Your task to perform on an android device: open chrome privacy settings Image 0: 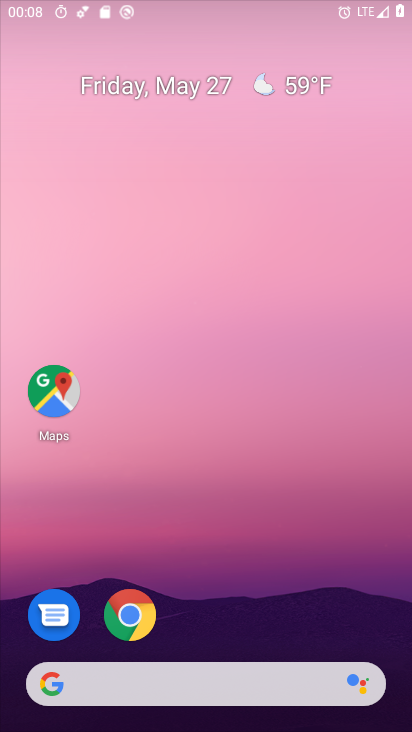
Step 0: click (266, 669)
Your task to perform on an android device: open chrome privacy settings Image 1: 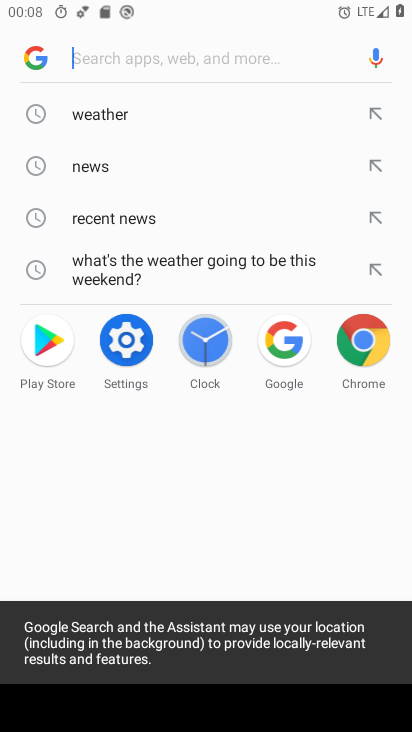
Step 1: click (371, 335)
Your task to perform on an android device: open chrome privacy settings Image 2: 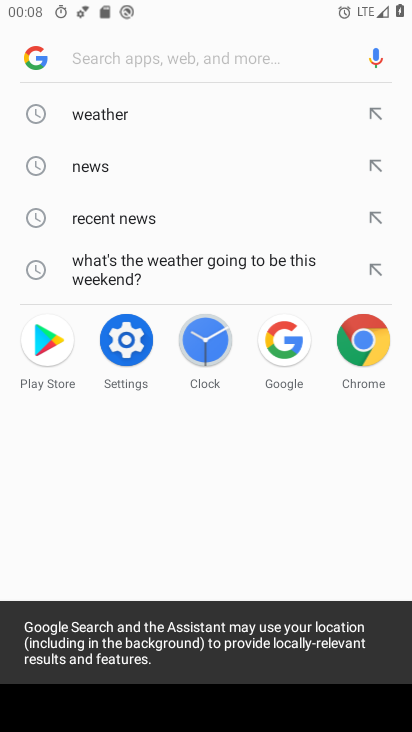
Step 2: click (371, 335)
Your task to perform on an android device: open chrome privacy settings Image 3: 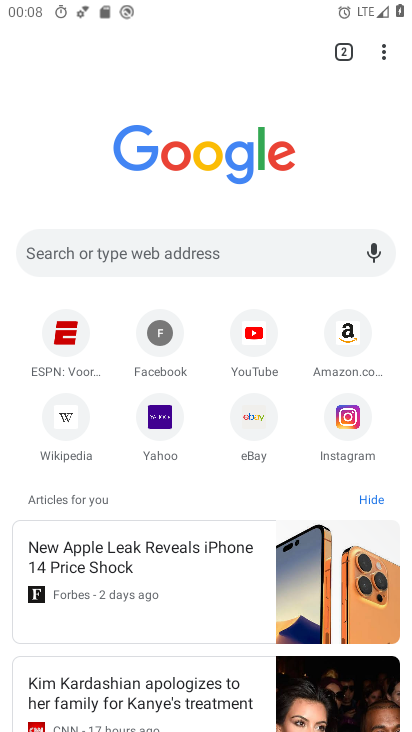
Step 3: click (367, 53)
Your task to perform on an android device: open chrome privacy settings Image 4: 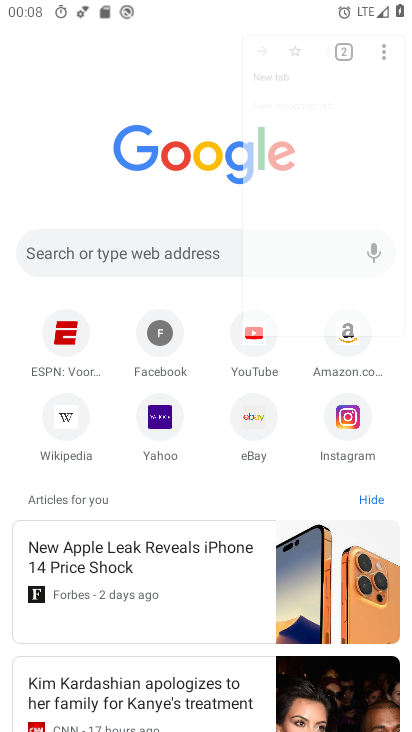
Step 4: click (367, 53)
Your task to perform on an android device: open chrome privacy settings Image 5: 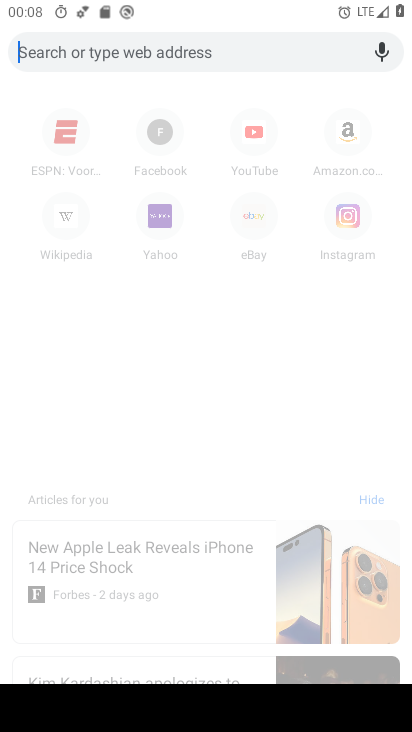
Step 5: press back button
Your task to perform on an android device: open chrome privacy settings Image 6: 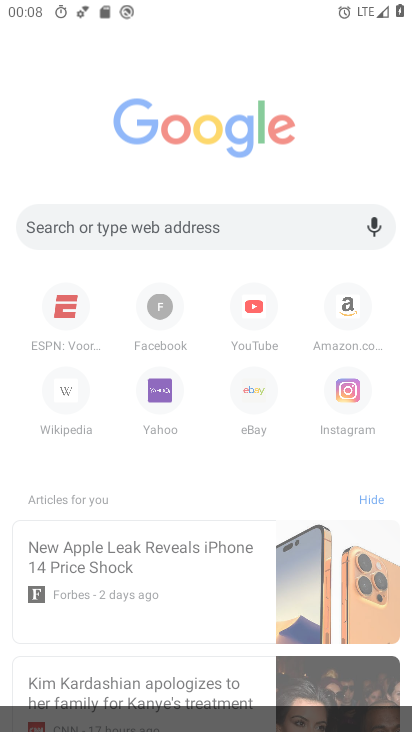
Step 6: press back button
Your task to perform on an android device: open chrome privacy settings Image 7: 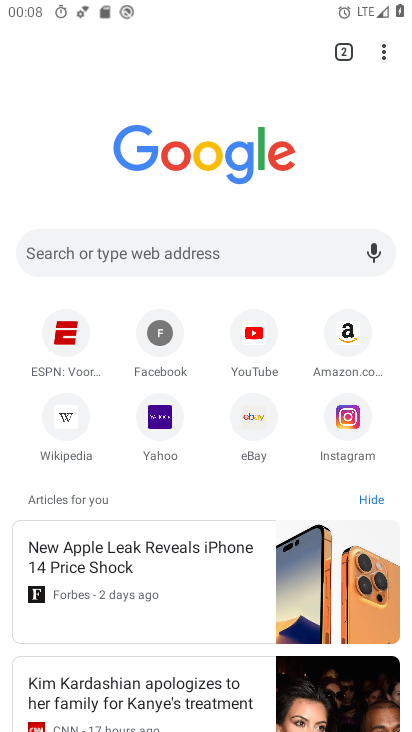
Step 7: press back button
Your task to perform on an android device: open chrome privacy settings Image 8: 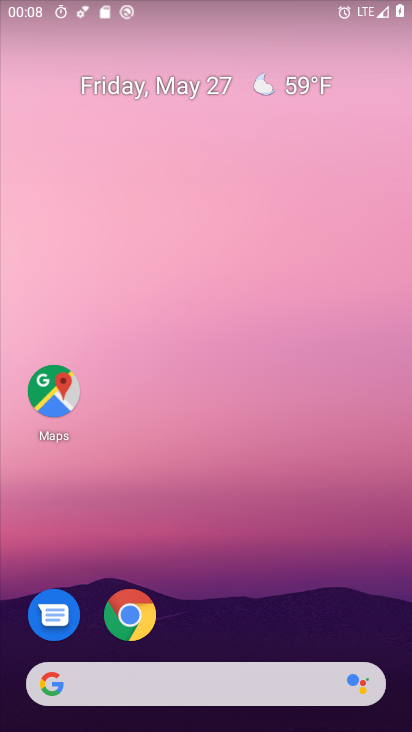
Step 8: drag from (290, 521) to (244, 75)
Your task to perform on an android device: open chrome privacy settings Image 9: 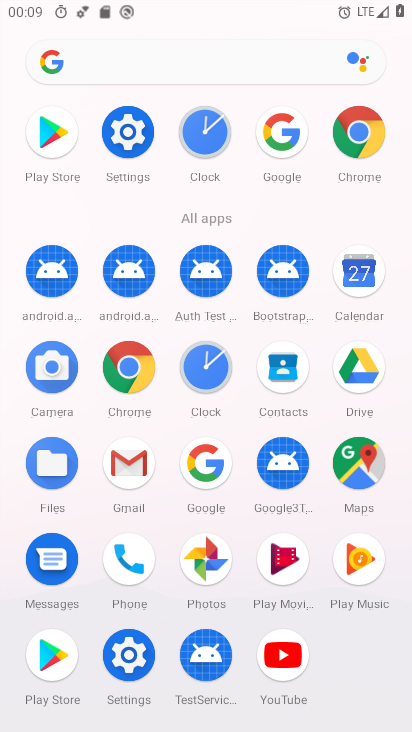
Step 9: click (357, 134)
Your task to perform on an android device: open chrome privacy settings Image 10: 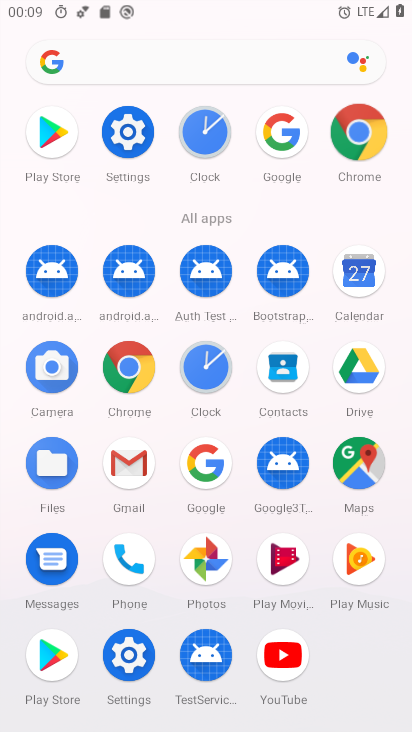
Step 10: click (357, 133)
Your task to perform on an android device: open chrome privacy settings Image 11: 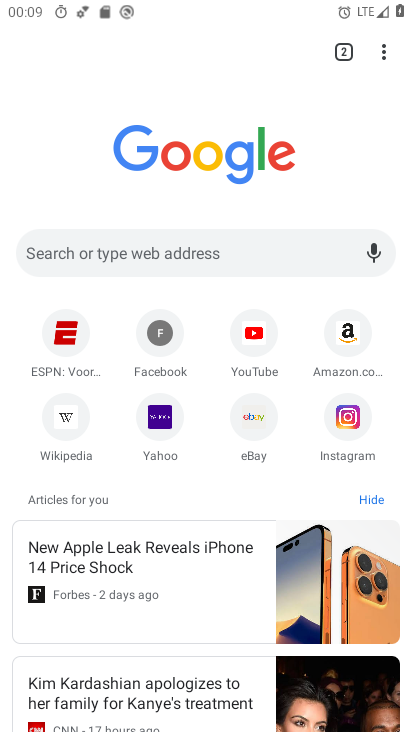
Step 11: drag from (386, 57) to (207, 439)
Your task to perform on an android device: open chrome privacy settings Image 12: 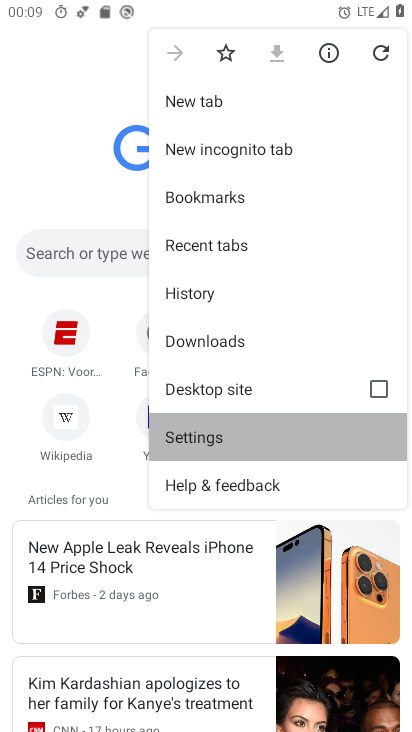
Step 12: click (207, 439)
Your task to perform on an android device: open chrome privacy settings Image 13: 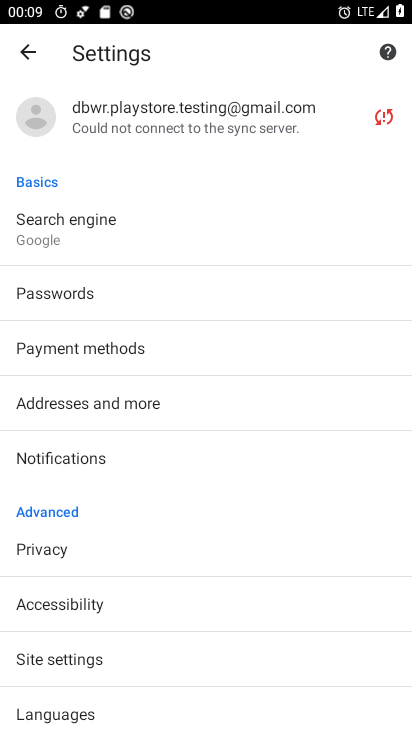
Step 13: click (59, 545)
Your task to perform on an android device: open chrome privacy settings Image 14: 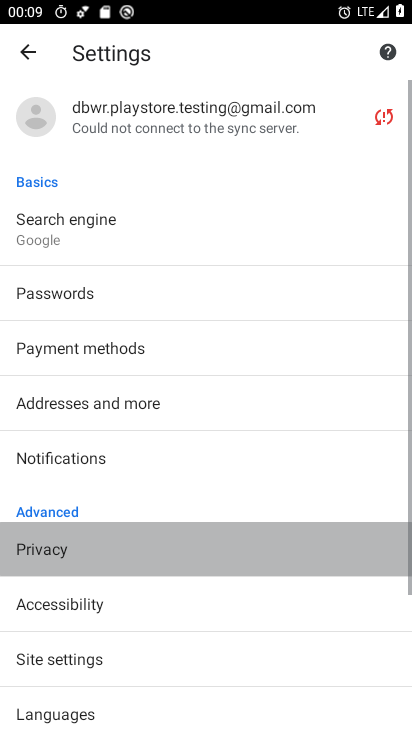
Step 14: click (57, 546)
Your task to perform on an android device: open chrome privacy settings Image 15: 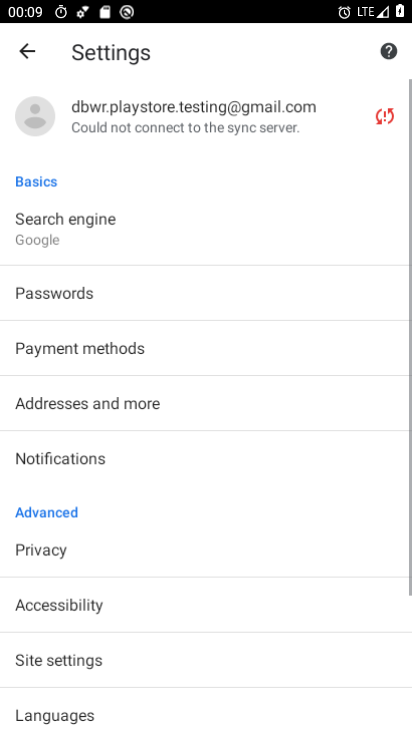
Step 15: click (57, 546)
Your task to perform on an android device: open chrome privacy settings Image 16: 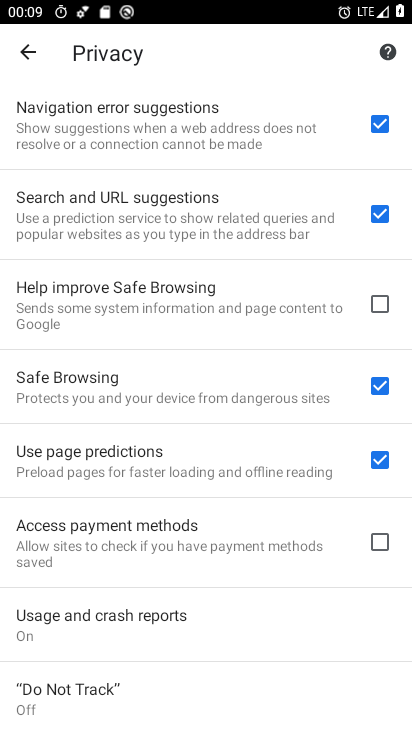
Step 16: task complete